Your task to perform on an android device: Add "macbook pro 15 inch" to the cart on costco Image 0: 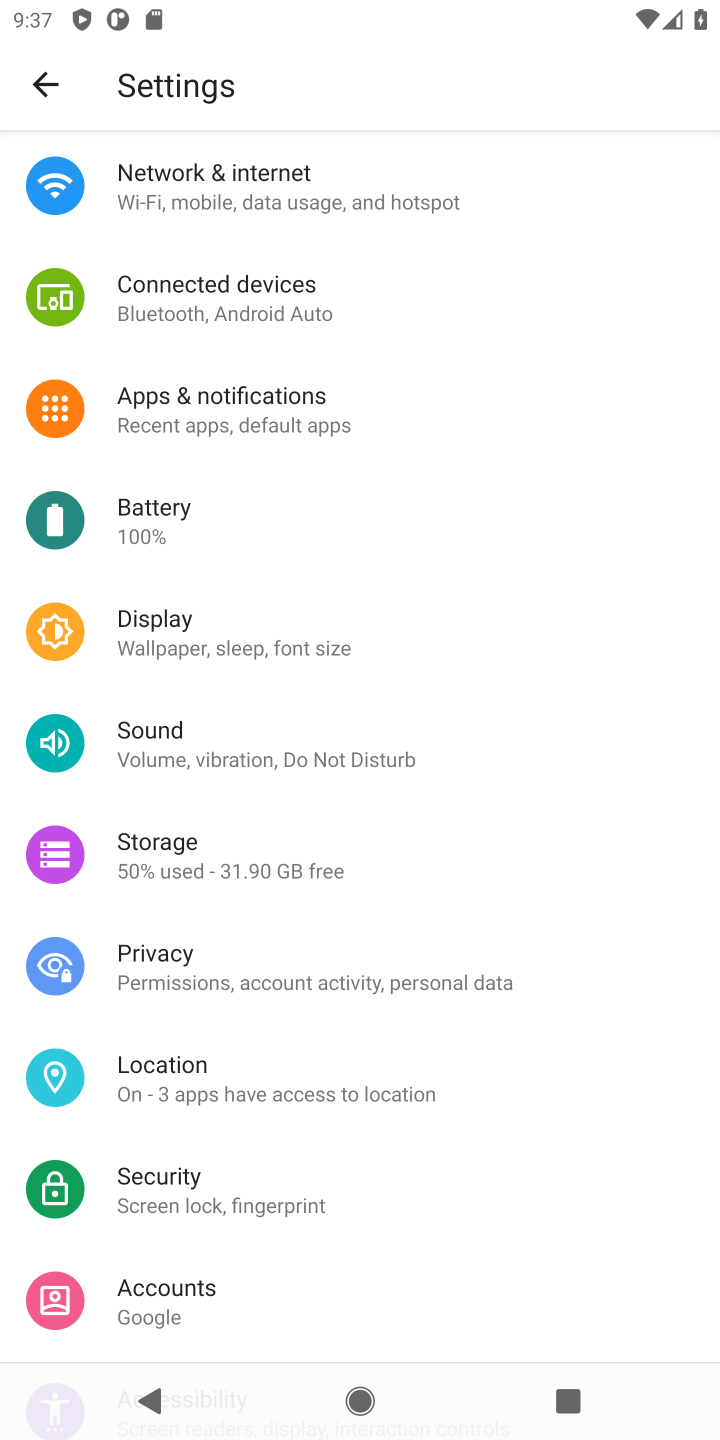
Step 0: press home button
Your task to perform on an android device: Add "macbook pro 15 inch" to the cart on costco Image 1: 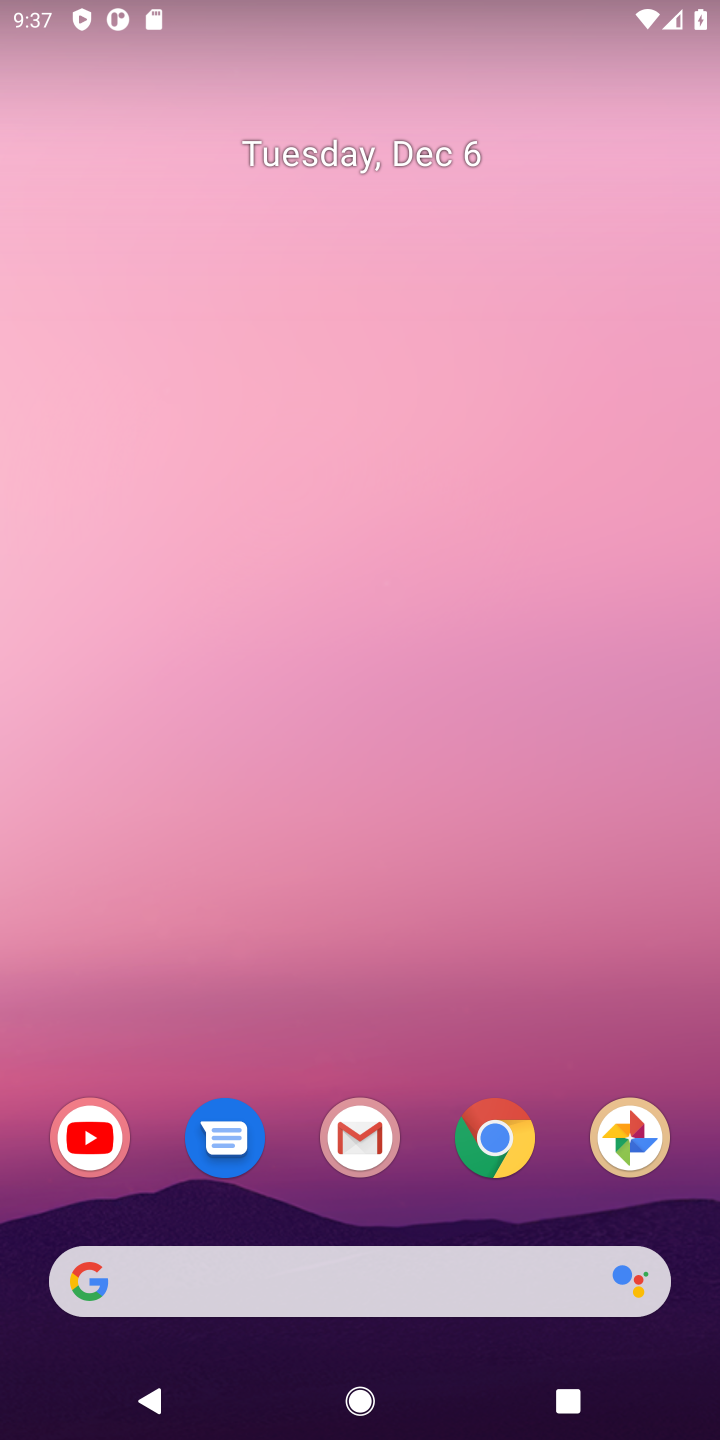
Step 1: click (489, 1147)
Your task to perform on an android device: Add "macbook pro 15 inch" to the cart on costco Image 2: 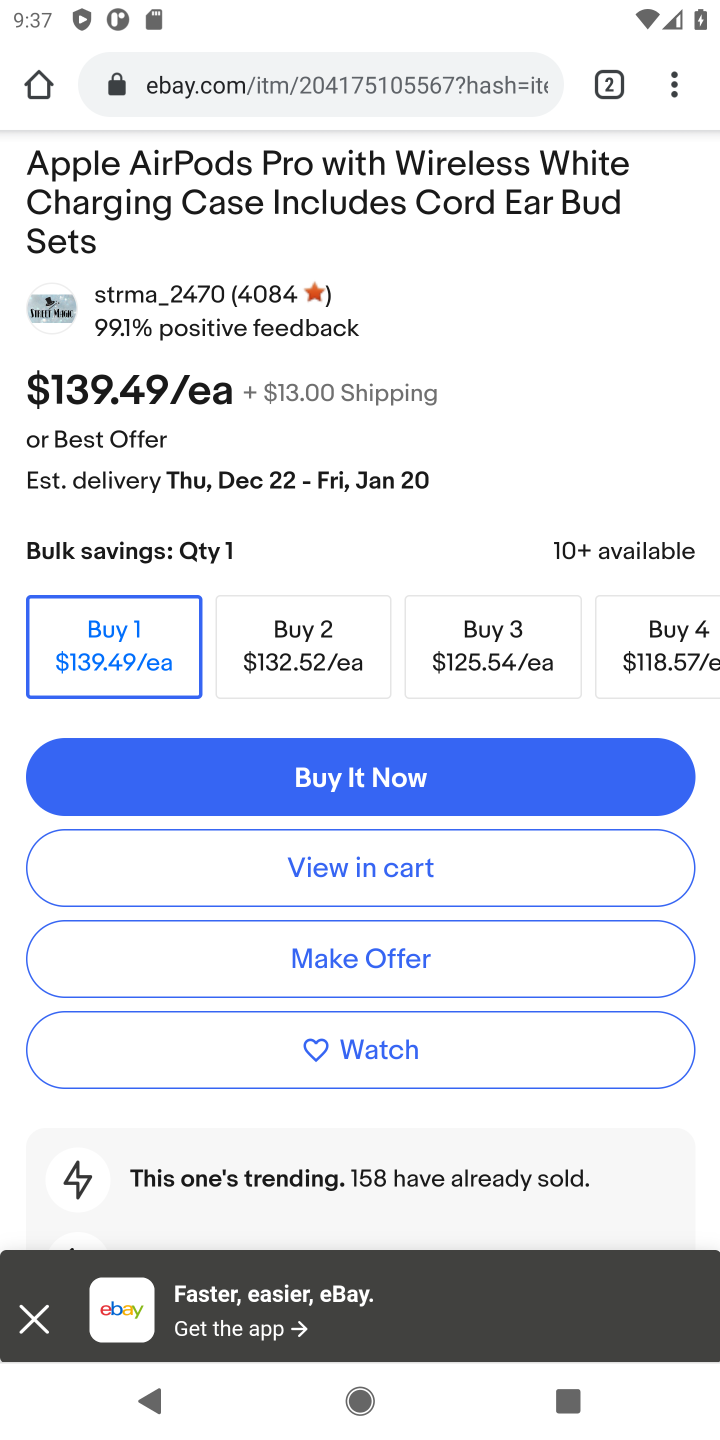
Step 2: click (264, 80)
Your task to perform on an android device: Add "macbook pro 15 inch" to the cart on costco Image 3: 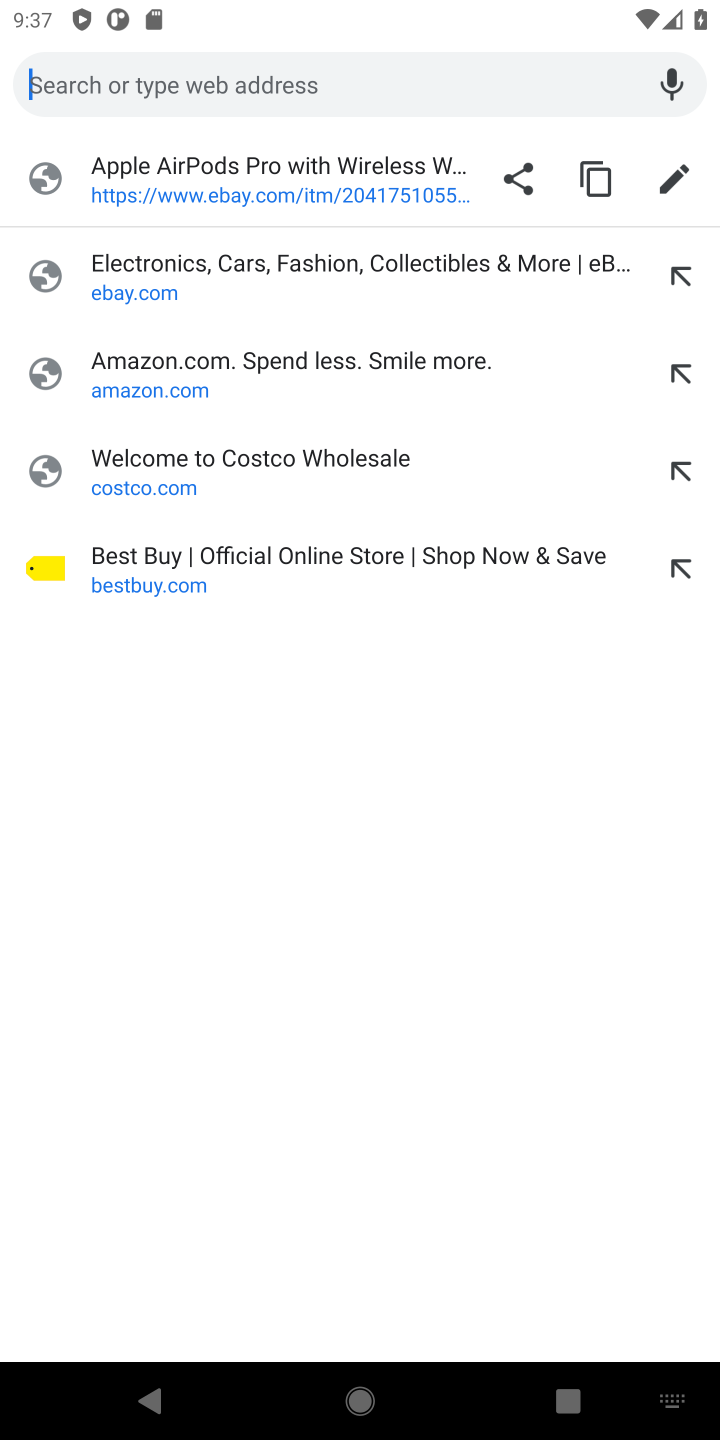
Step 3: click (127, 472)
Your task to perform on an android device: Add "macbook pro 15 inch" to the cart on costco Image 4: 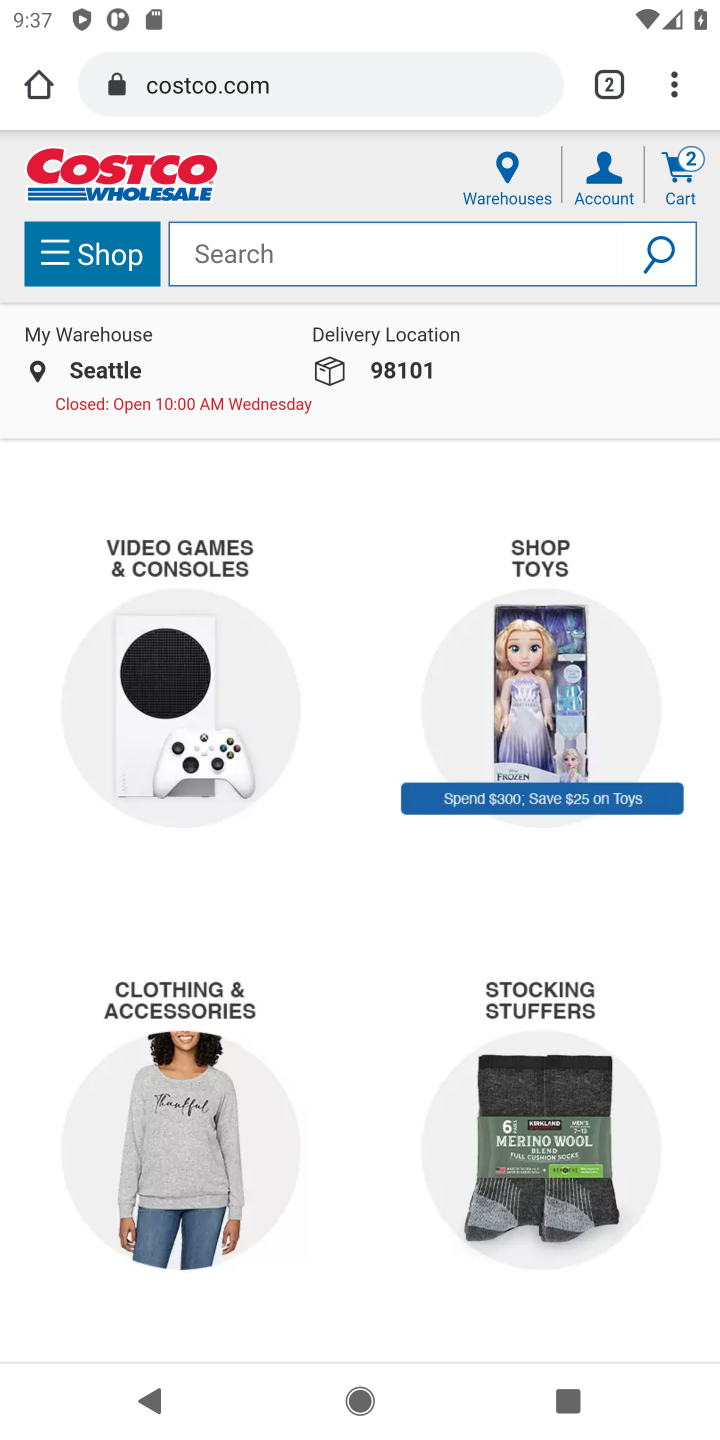
Step 4: click (213, 255)
Your task to perform on an android device: Add "macbook pro 15 inch" to the cart on costco Image 5: 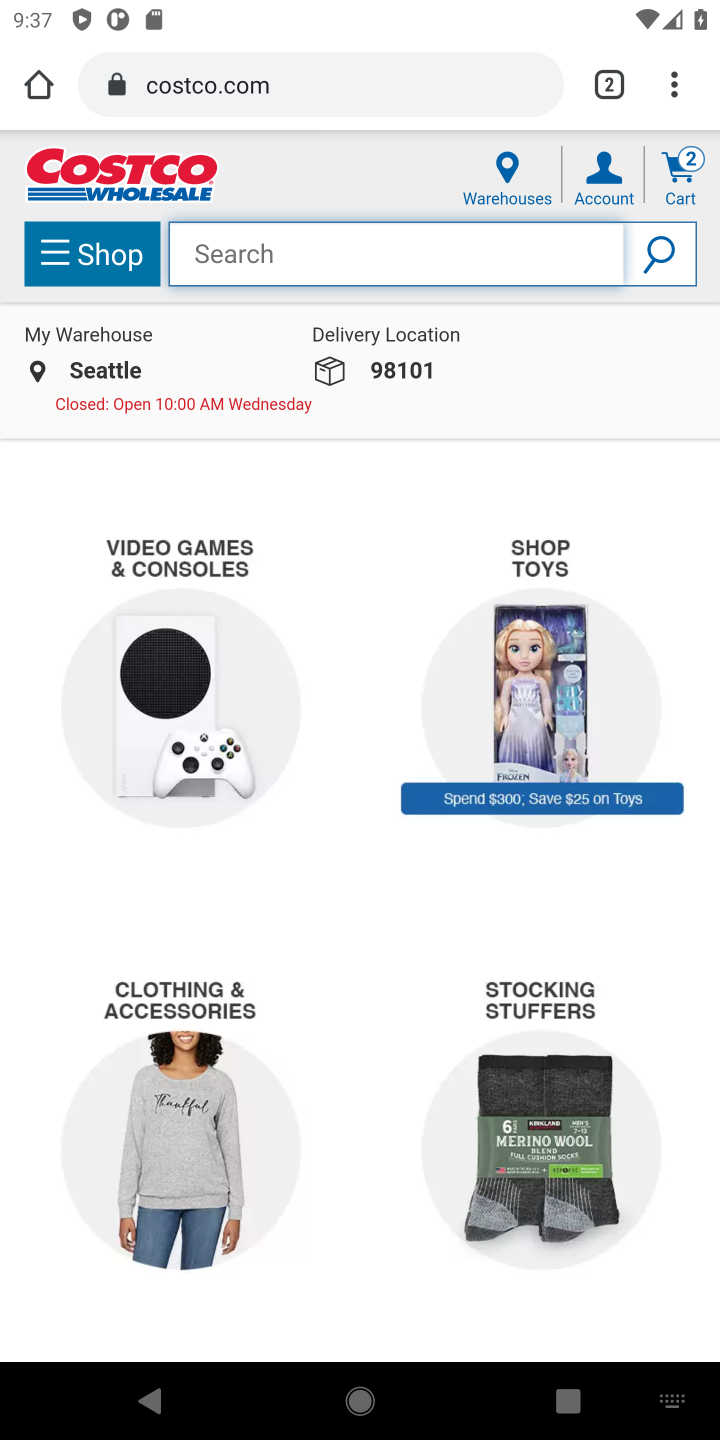
Step 5: type "macbook pro 15 inch"
Your task to perform on an android device: Add "macbook pro 15 inch" to the cart on costco Image 6: 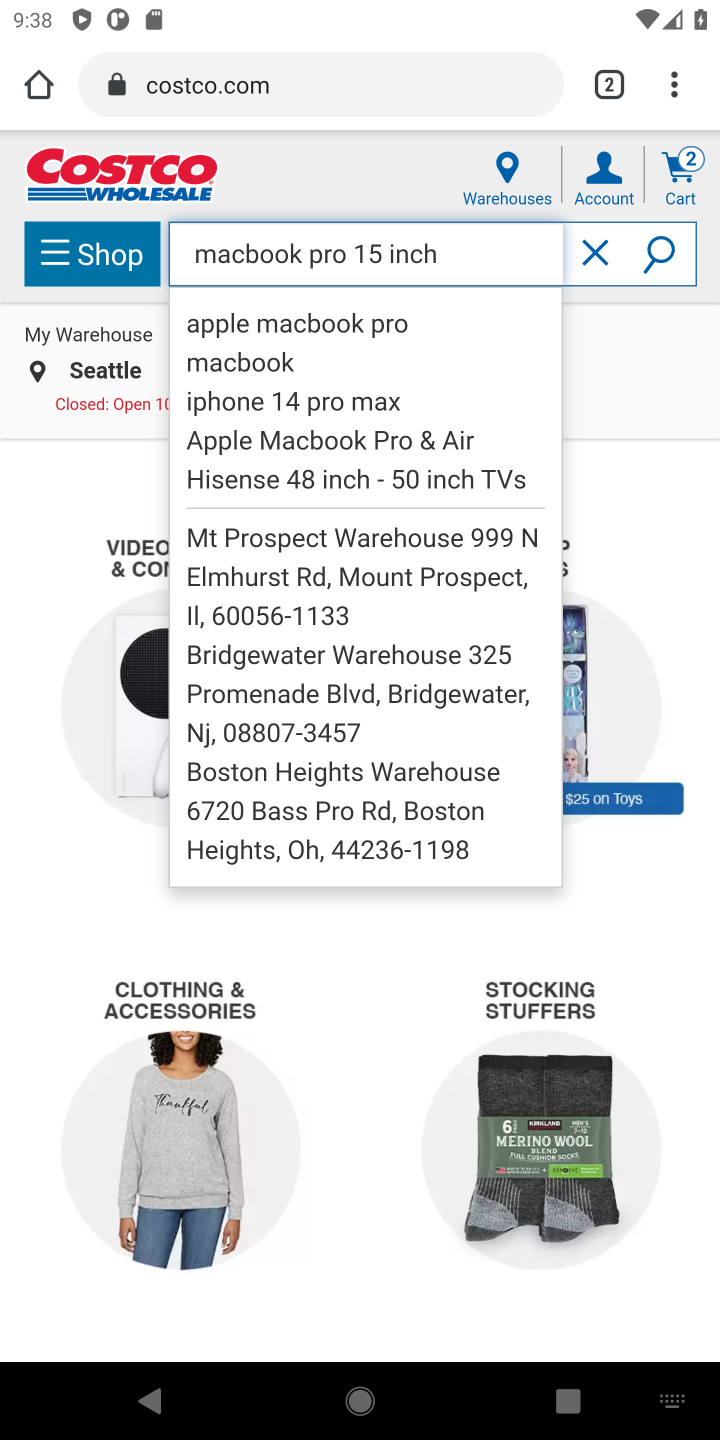
Step 6: click (670, 264)
Your task to perform on an android device: Add "macbook pro 15 inch" to the cart on costco Image 7: 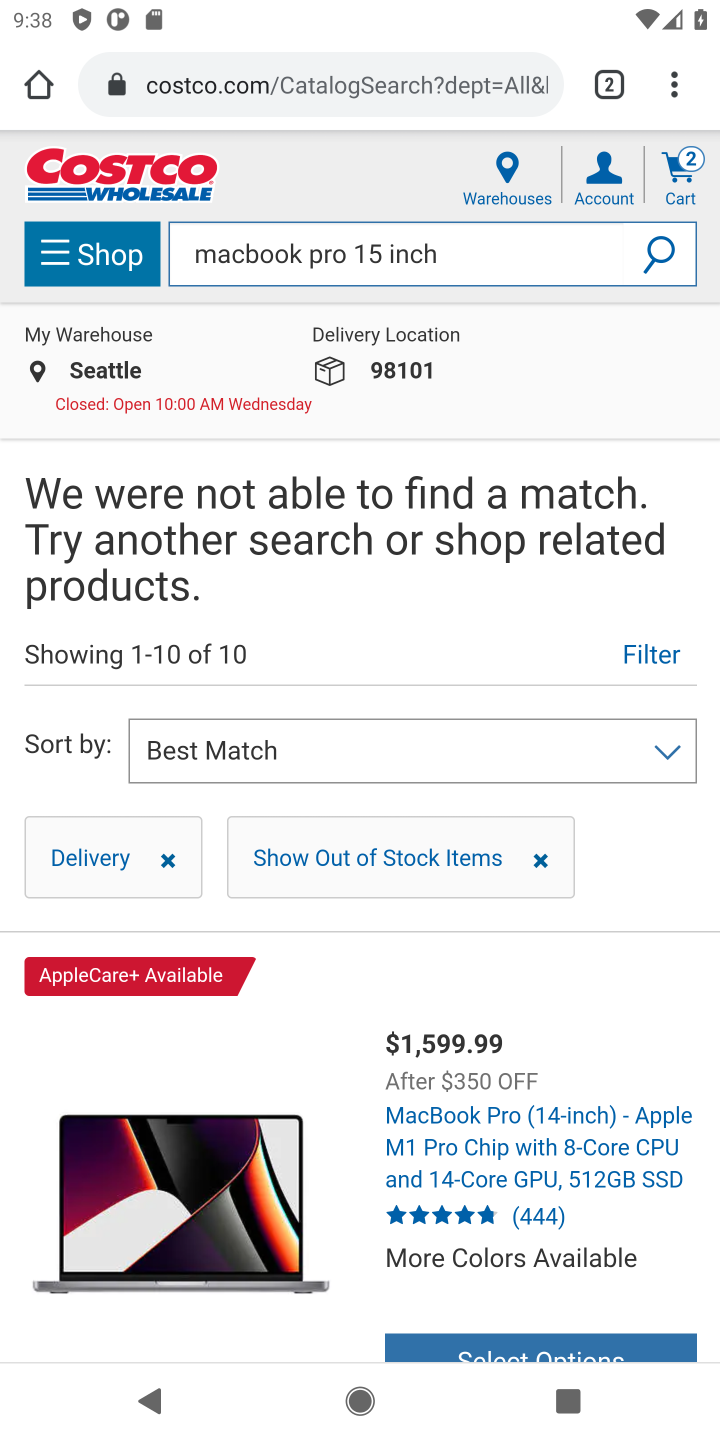
Step 7: task complete